Your task to perform on an android device: Play the last video I watched on Youtube Image 0: 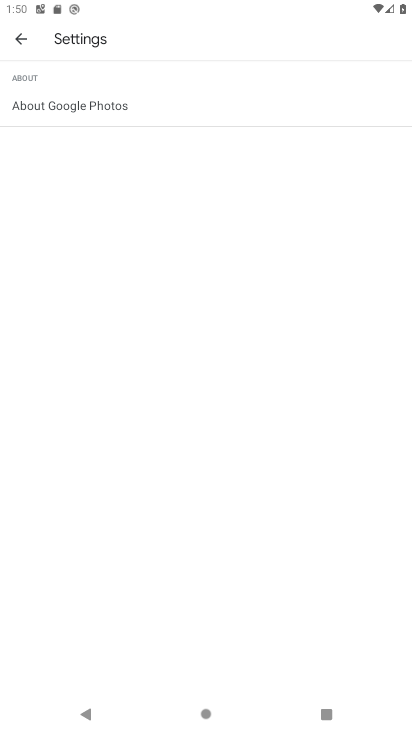
Step 0: drag from (194, 610) to (237, 214)
Your task to perform on an android device: Play the last video I watched on Youtube Image 1: 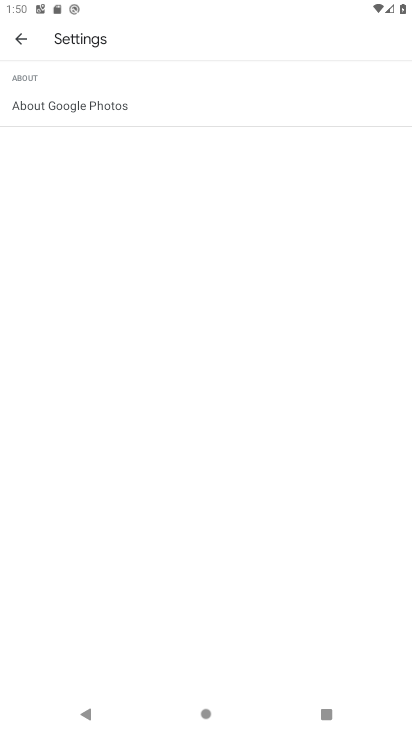
Step 1: press home button
Your task to perform on an android device: Play the last video I watched on Youtube Image 2: 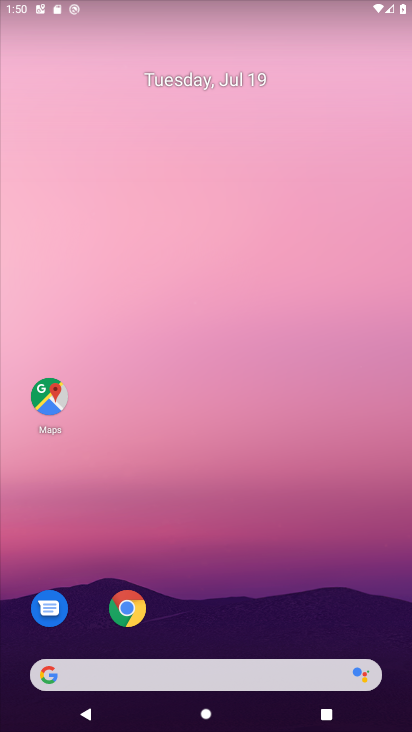
Step 2: drag from (229, 578) to (275, 144)
Your task to perform on an android device: Play the last video I watched on Youtube Image 3: 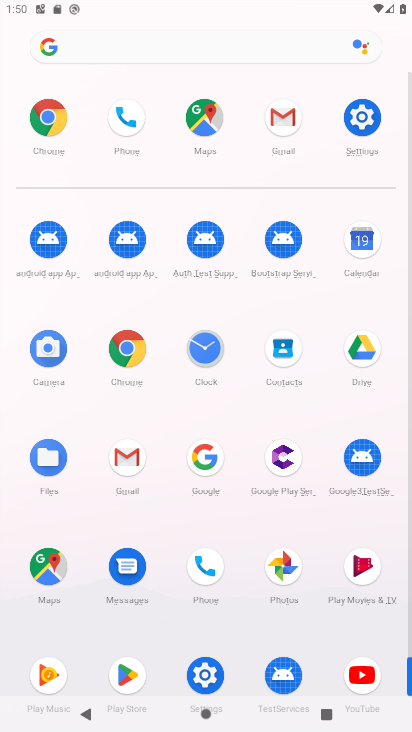
Step 3: click (360, 683)
Your task to perform on an android device: Play the last video I watched on Youtube Image 4: 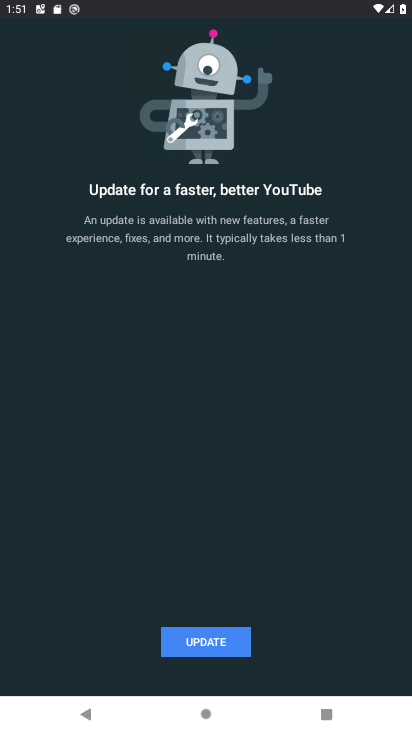
Step 4: click (191, 641)
Your task to perform on an android device: Play the last video I watched on Youtube Image 5: 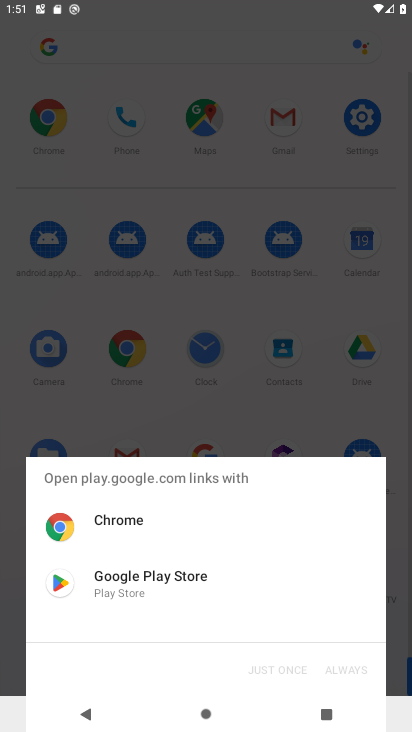
Step 5: task complete